Your task to perform on an android device: turn off javascript in the chrome app Image 0: 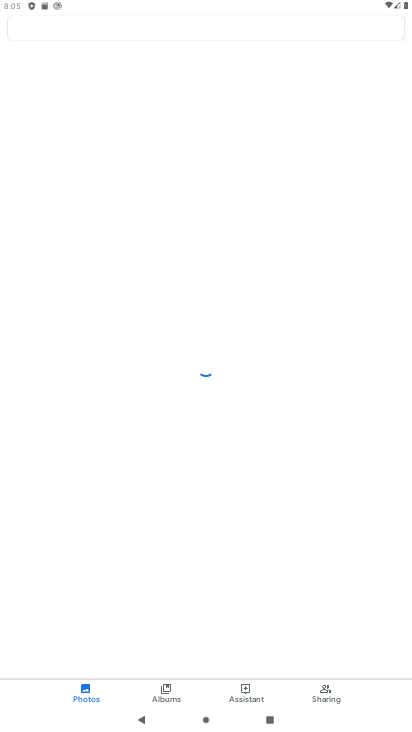
Step 0: press home button
Your task to perform on an android device: turn off javascript in the chrome app Image 1: 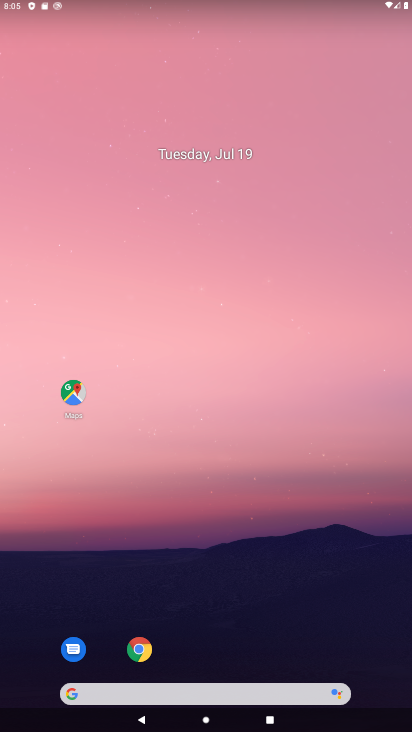
Step 1: click (131, 641)
Your task to perform on an android device: turn off javascript in the chrome app Image 2: 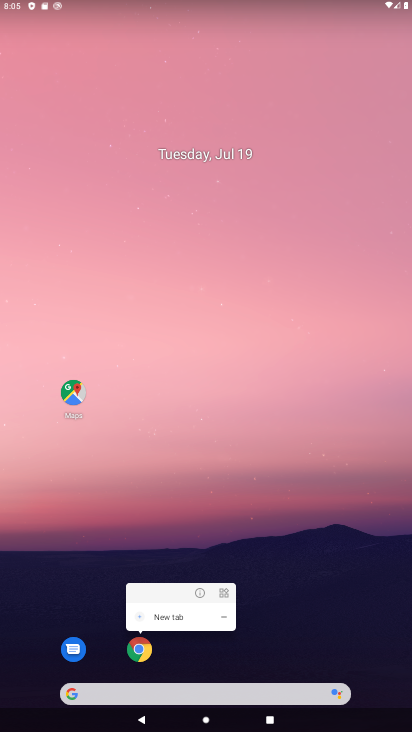
Step 2: click (149, 652)
Your task to perform on an android device: turn off javascript in the chrome app Image 3: 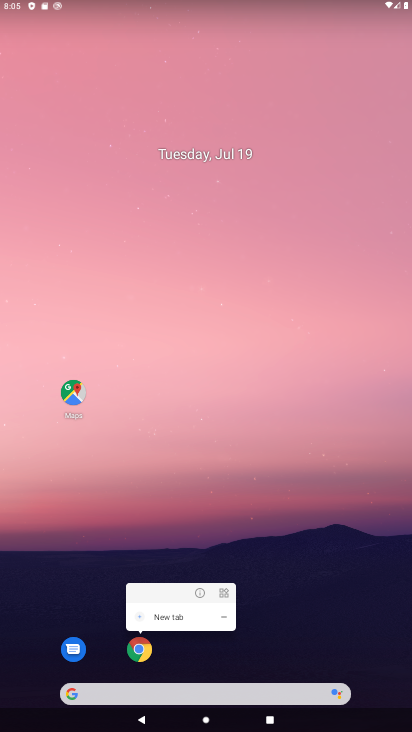
Step 3: click (144, 652)
Your task to perform on an android device: turn off javascript in the chrome app Image 4: 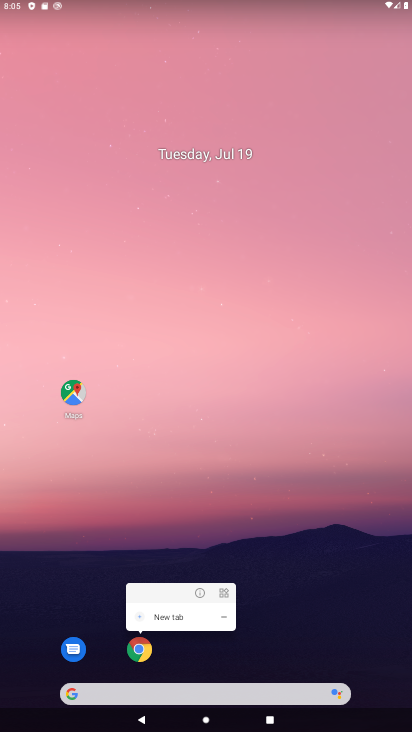
Step 4: click (144, 652)
Your task to perform on an android device: turn off javascript in the chrome app Image 5: 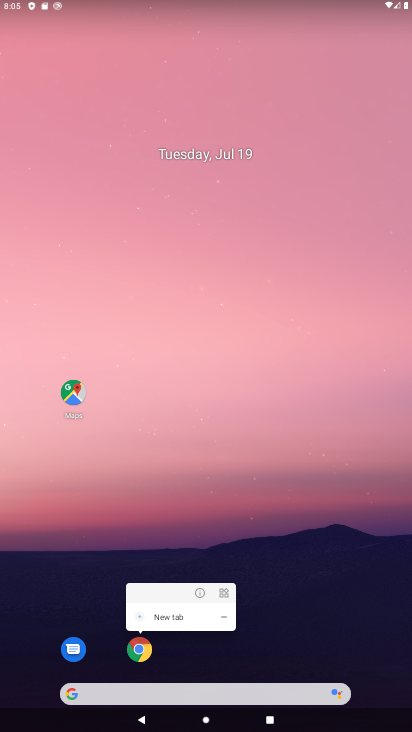
Step 5: click (140, 652)
Your task to perform on an android device: turn off javascript in the chrome app Image 6: 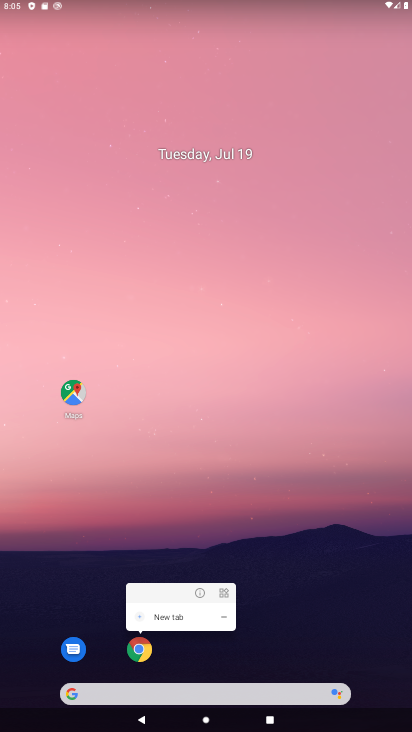
Step 6: click (136, 644)
Your task to perform on an android device: turn off javascript in the chrome app Image 7: 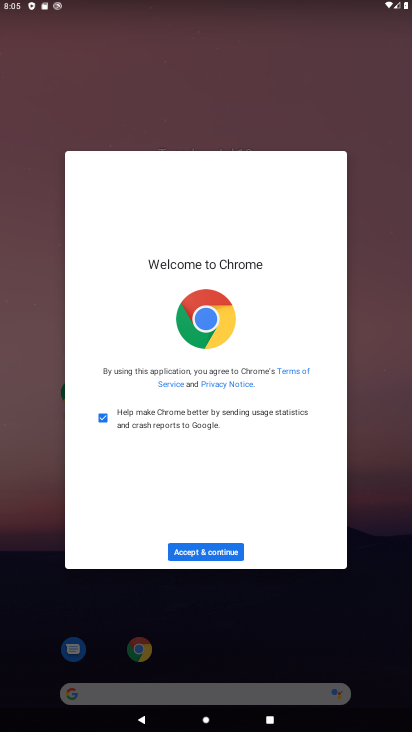
Step 7: click (217, 557)
Your task to perform on an android device: turn off javascript in the chrome app Image 8: 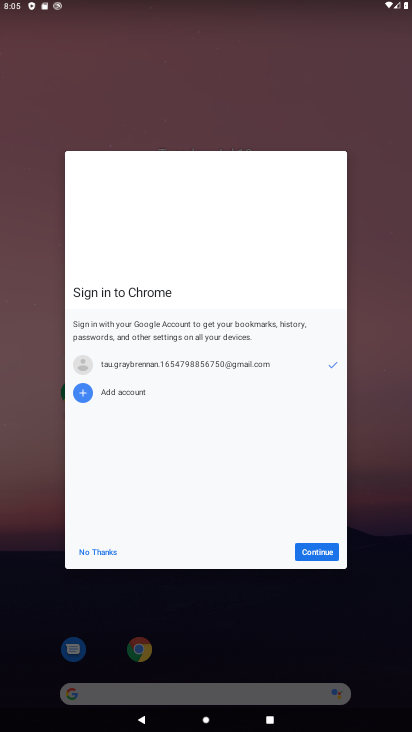
Step 8: click (310, 567)
Your task to perform on an android device: turn off javascript in the chrome app Image 9: 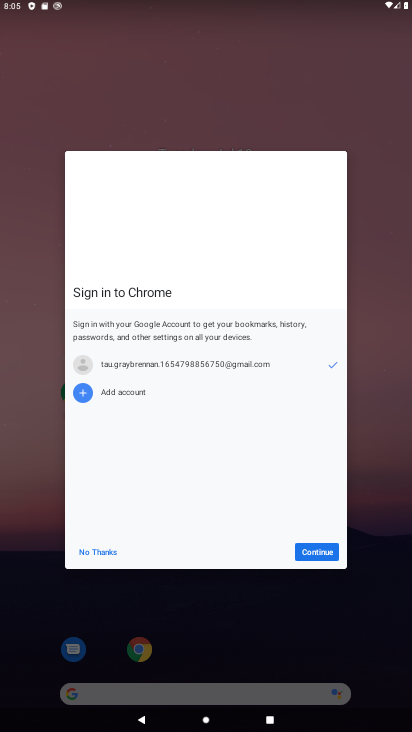
Step 9: click (318, 557)
Your task to perform on an android device: turn off javascript in the chrome app Image 10: 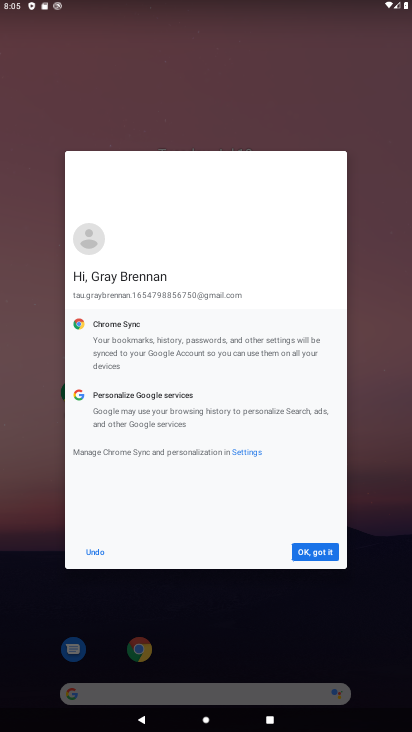
Step 10: click (318, 557)
Your task to perform on an android device: turn off javascript in the chrome app Image 11: 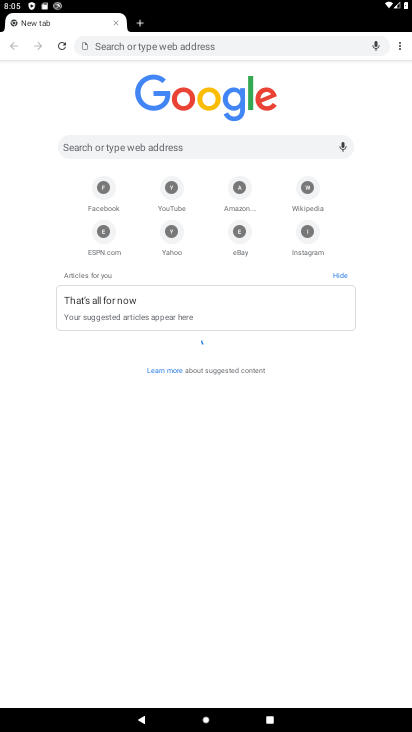
Step 11: drag from (391, 37) to (304, 211)
Your task to perform on an android device: turn off javascript in the chrome app Image 12: 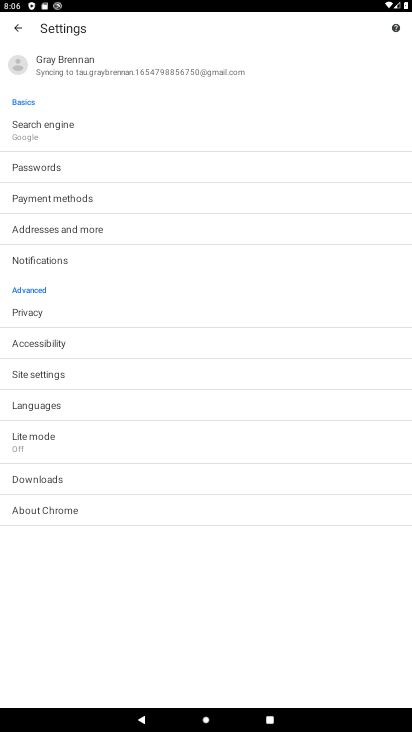
Step 12: click (58, 372)
Your task to perform on an android device: turn off javascript in the chrome app Image 13: 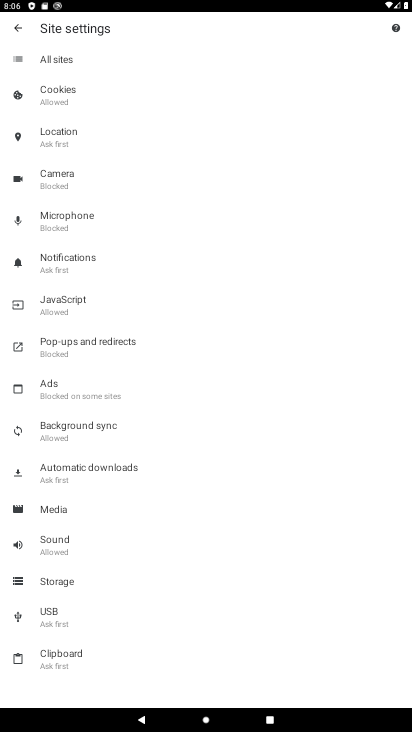
Step 13: click (100, 308)
Your task to perform on an android device: turn off javascript in the chrome app Image 14: 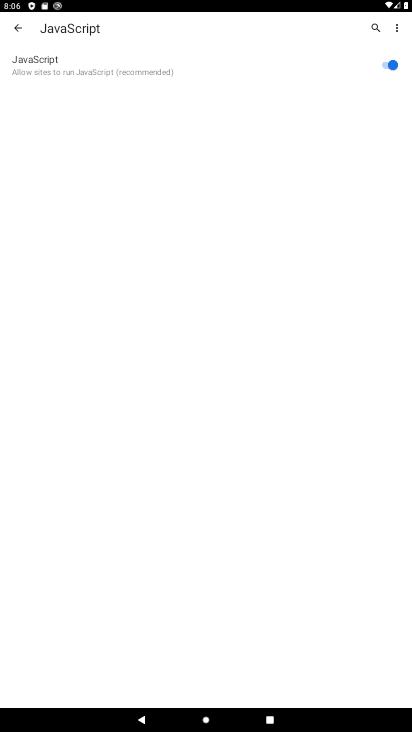
Step 14: click (384, 62)
Your task to perform on an android device: turn off javascript in the chrome app Image 15: 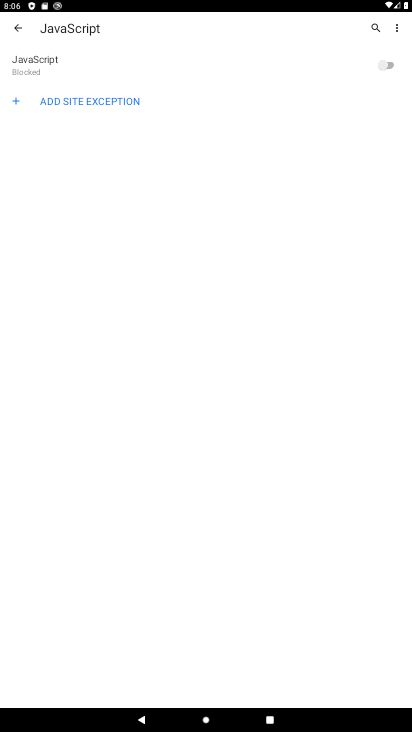
Step 15: task complete